Your task to perform on an android device: toggle show notifications on the lock screen Image 0: 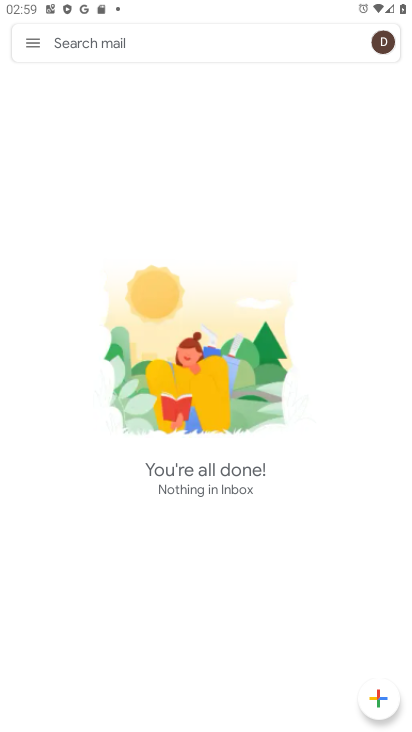
Step 0: press home button
Your task to perform on an android device: toggle show notifications on the lock screen Image 1: 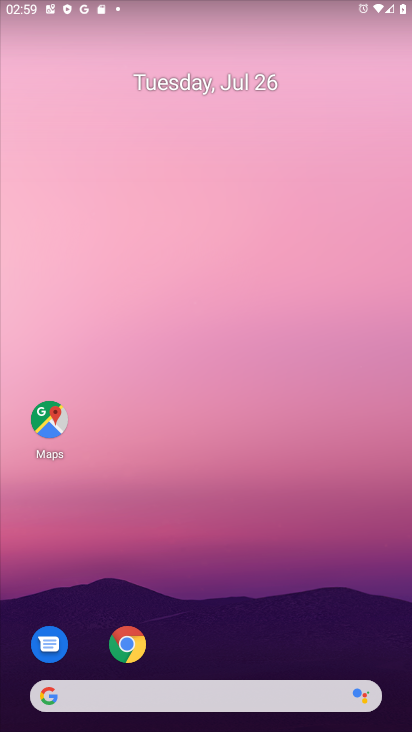
Step 1: drag from (203, 678) to (149, 8)
Your task to perform on an android device: toggle show notifications on the lock screen Image 2: 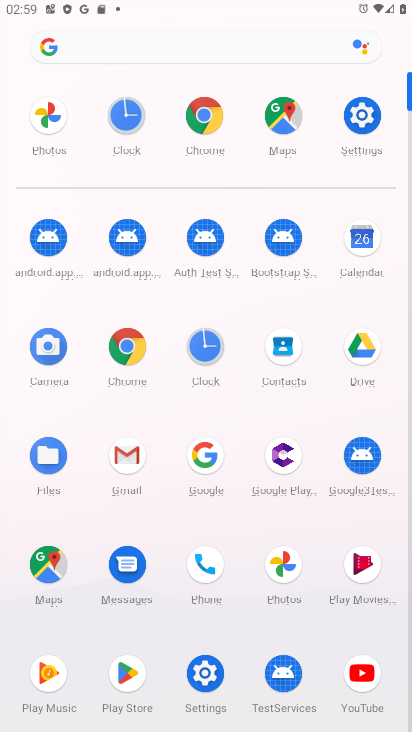
Step 2: click (352, 120)
Your task to perform on an android device: toggle show notifications on the lock screen Image 3: 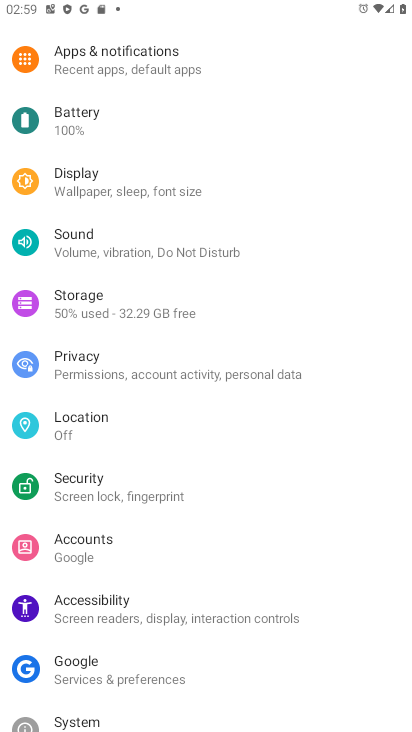
Step 3: click (136, 59)
Your task to perform on an android device: toggle show notifications on the lock screen Image 4: 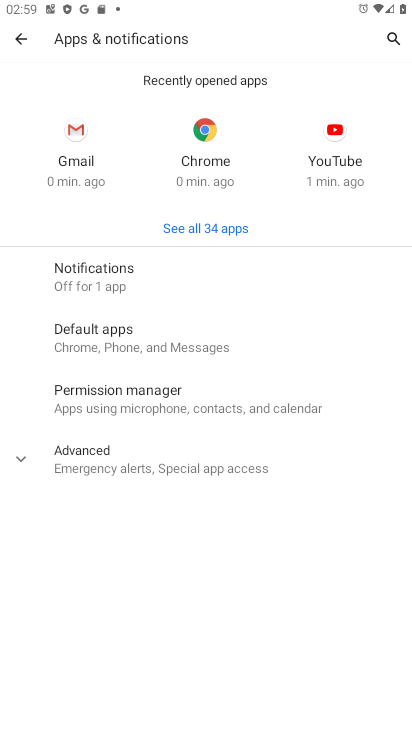
Step 4: click (110, 282)
Your task to perform on an android device: toggle show notifications on the lock screen Image 5: 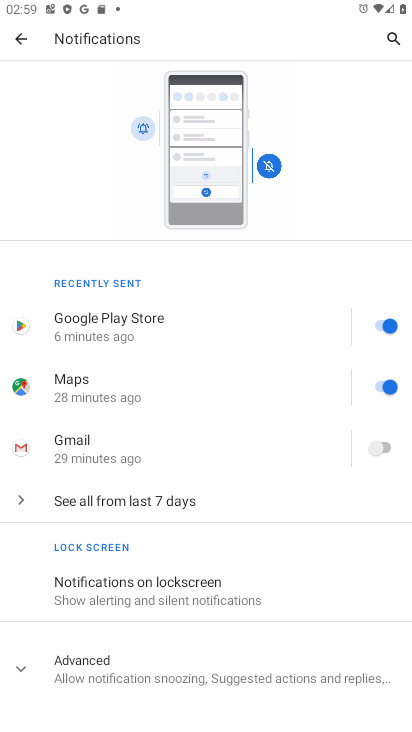
Step 5: click (172, 581)
Your task to perform on an android device: toggle show notifications on the lock screen Image 6: 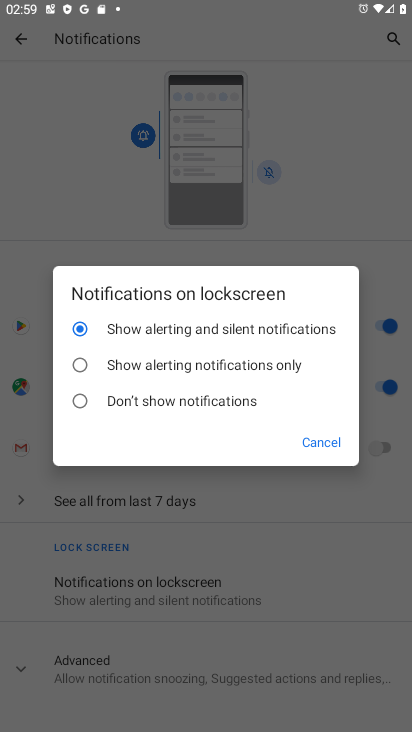
Step 6: click (145, 358)
Your task to perform on an android device: toggle show notifications on the lock screen Image 7: 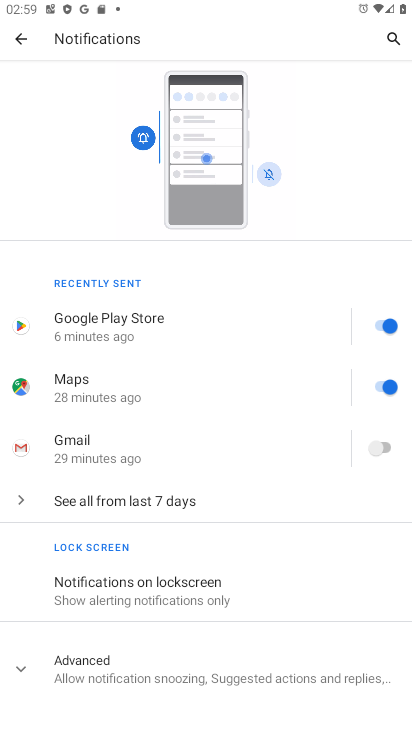
Step 7: task complete